Your task to perform on an android device: move an email to a new category in the gmail app Image 0: 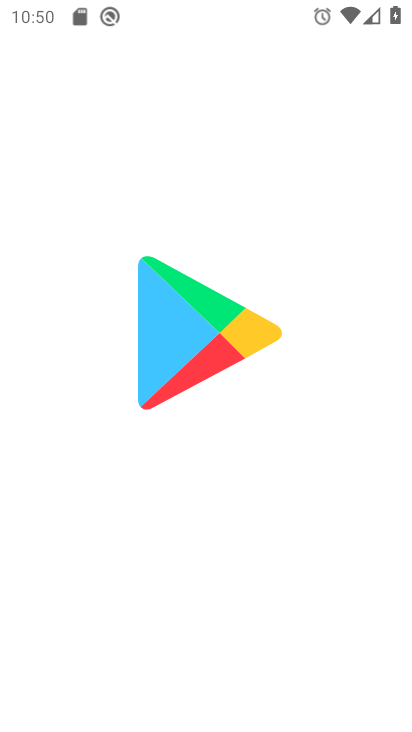
Step 0: drag from (297, 447) to (245, 170)
Your task to perform on an android device: move an email to a new category in the gmail app Image 1: 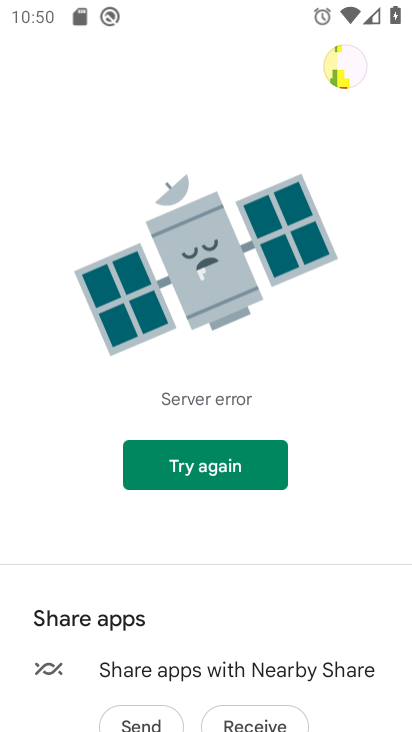
Step 1: press home button
Your task to perform on an android device: move an email to a new category in the gmail app Image 2: 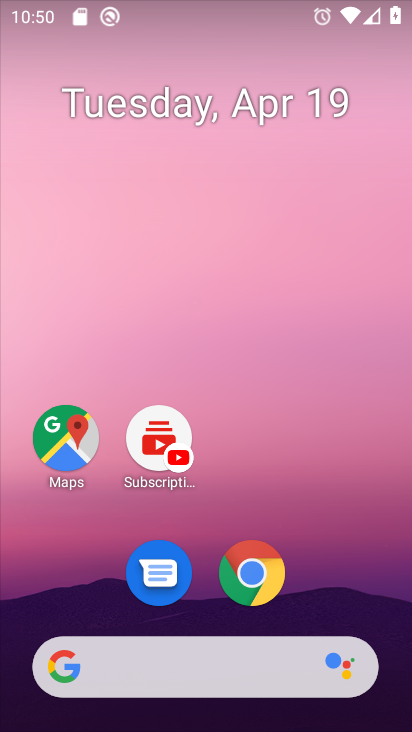
Step 2: drag from (317, 522) to (283, 185)
Your task to perform on an android device: move an email to a new category in the gmail app Image 3: 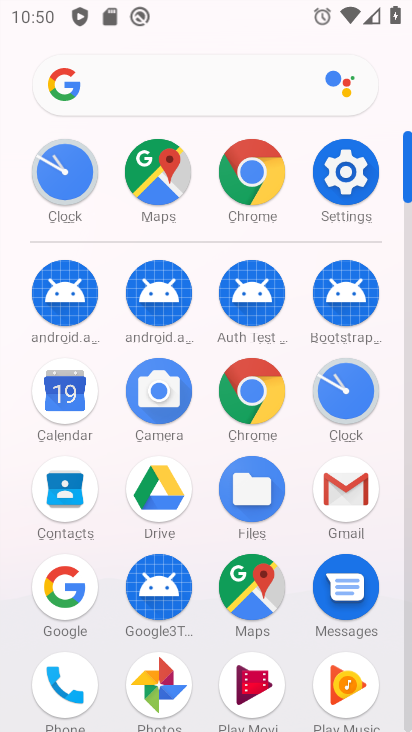
Step 3: click (357, 490)
Your task to perform on an android device: move an email to a new category in the gmail app Image 4: 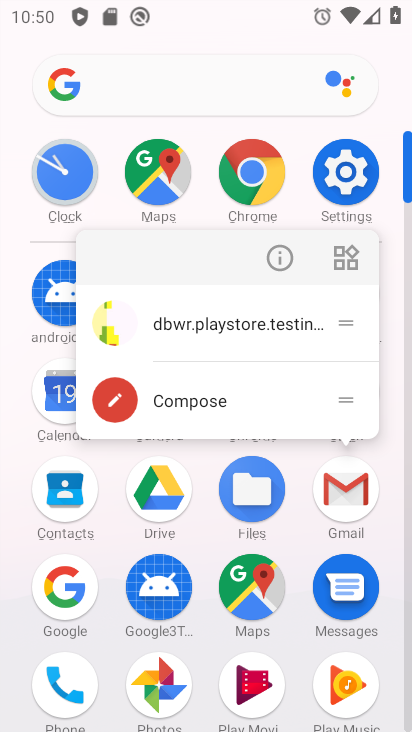
Step 4: click (357, 488)
Your task to perform on an android device: move an email to a new category in the gmail app Image 5: 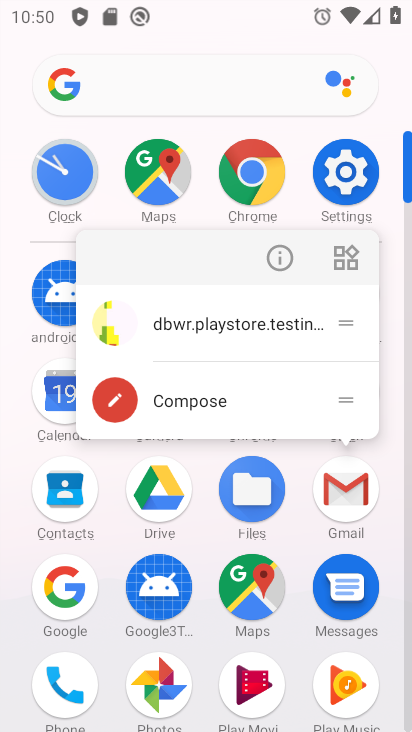
Step 5: click (357, 488)
Your task to perform on an android device: move an email to a new category in the gmail app Image 6: 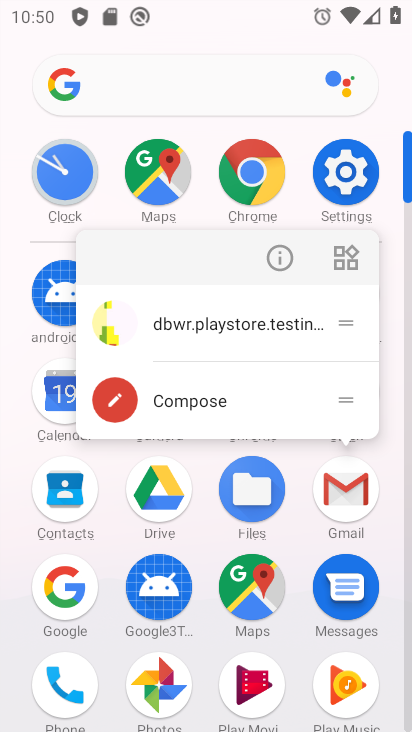
Step 6: click (341, 486)
Your task to perform on an android device: move an email to a new category in the gmail app Image 7: 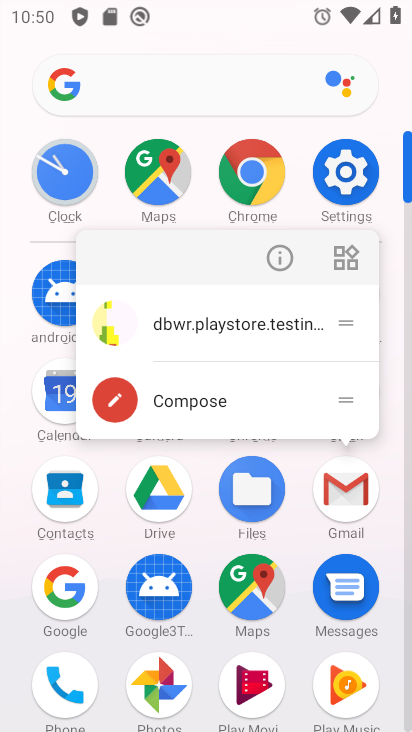
Step 7: click (340, 485)
Your task to perform on an android device: move an email to a new category in the gmail app Image 8: 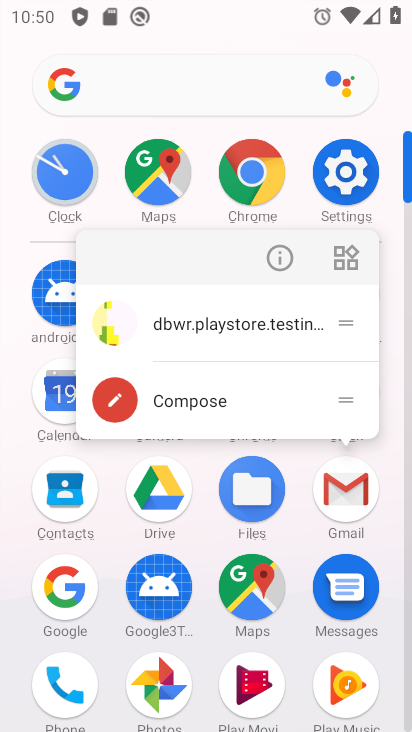
Step 8: click (340, 485)
Your task to perform on an android device: move an email to a new category in the gmail app Image 9: 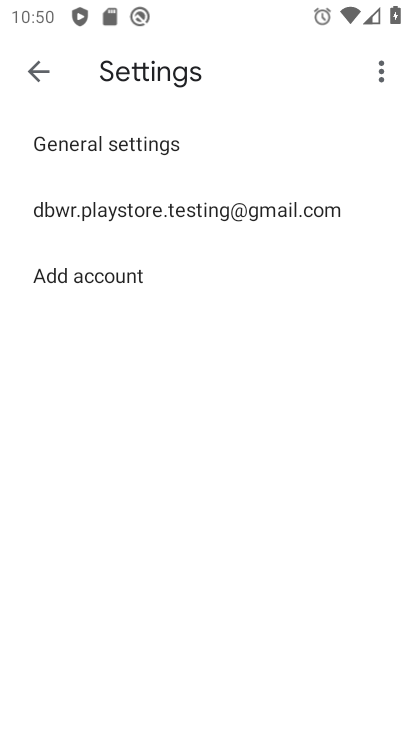
Step 9: click (34, 77)
Your task to perform on an android device: move an email to a new category in the gmail app Image 10: 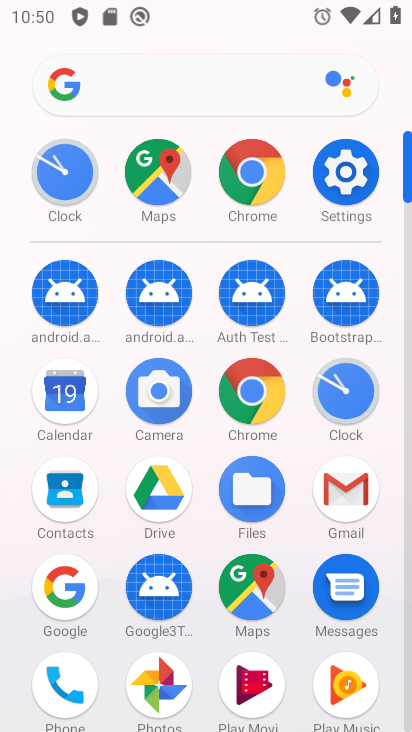
Step 10: click (319, 490)
Your task to perform on an android device: move an email to a new category in the gmail app Image 11: 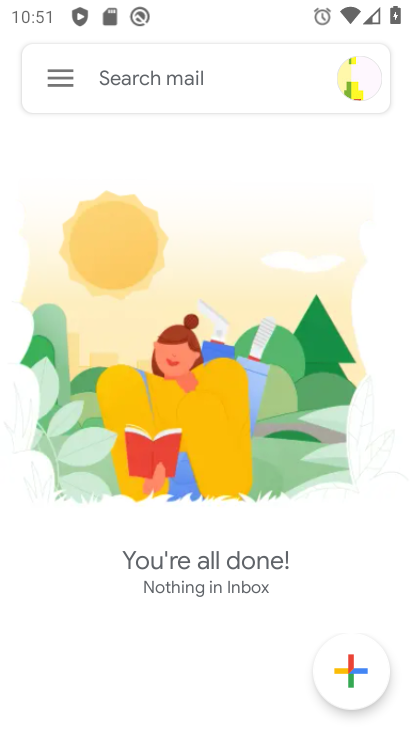
Step 11: task complete